Your task to perform on an android device: Do I have any events tomorrow? Image 0: 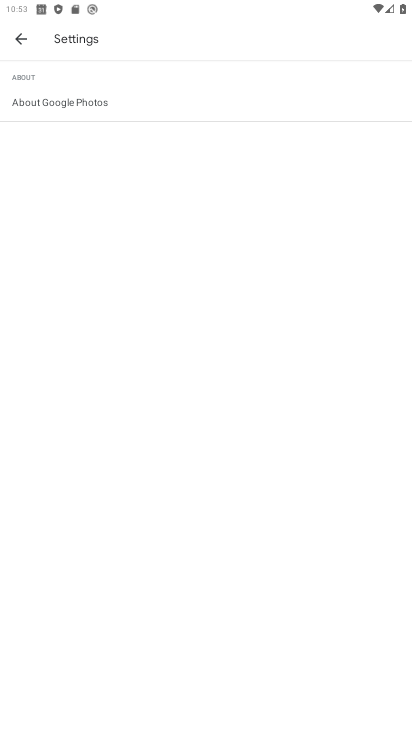
Step 0: press home button
Your task to perform on an android device: Do I have any events tomorrow? Image 1: 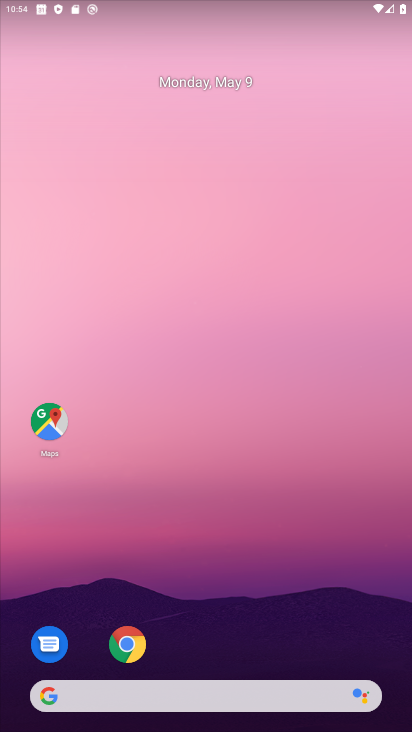
Step 1: drag from (233, 624) to (249, 10)
Your task to perform on an android device: Do I have any events tomorrow? Image 2: 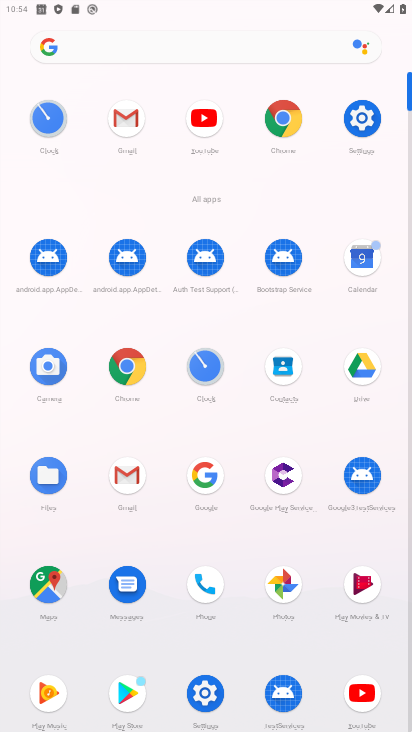
Step 2: drag from (228, 633) to (238, 464)
Your task to perform on an android device: Do I have any events tomorrow? Image 3: 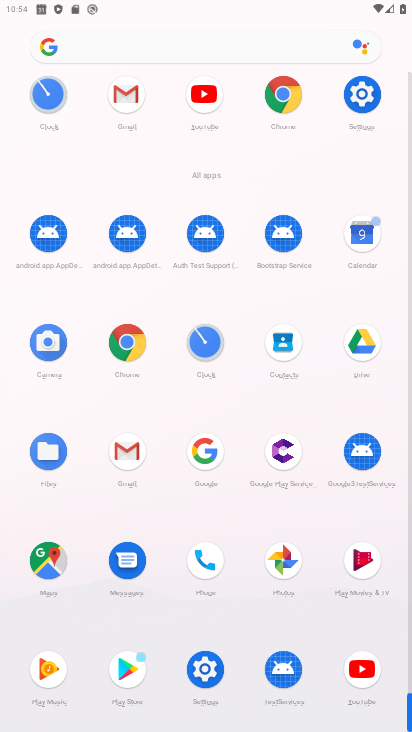
Step 3: click (364, 226)
Your task to perform on an android device: Do I have any events tomorrow? Image 4: 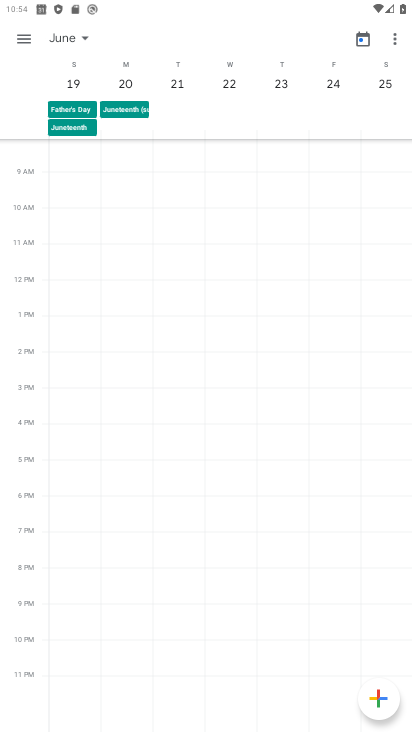
Step 4: click (30, 34)
Your task to perform on an android device: Do I have any events tomorrow? Image 5: 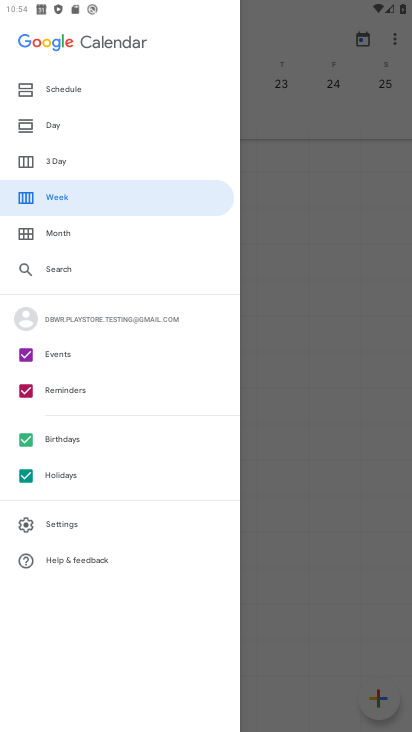
Step 5: click (52, 396)
Your task to perform on an android device: Do I have any events tomorrow? Image 6: 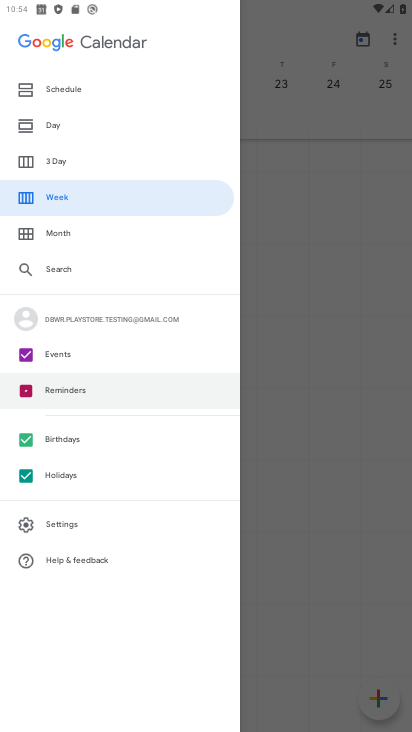
Step 6: click (59, 440)
Your task to perform on an android device: Do I have any events tomorrow? Image 7: 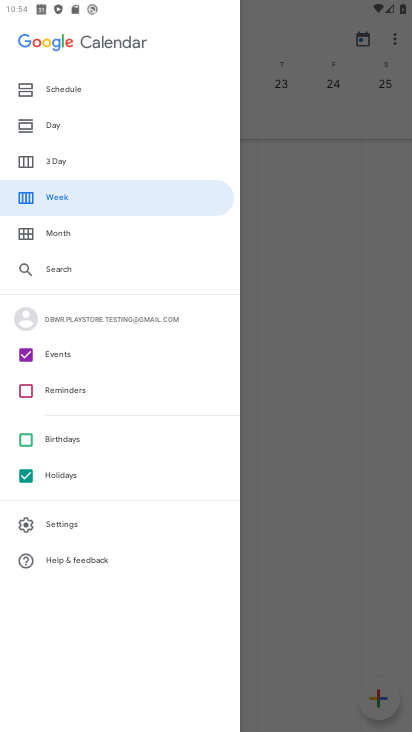
Step 7: click (58, 479)
Your task to perform on an android device: Do I have any events tomorrow? Image 8: 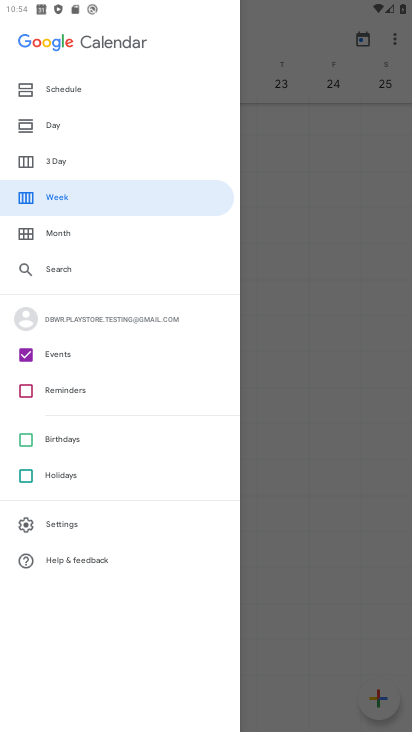
Step 8: click (62, 157)
Your task to perform on an android device: Do I have any events tomorrow? Image 9: 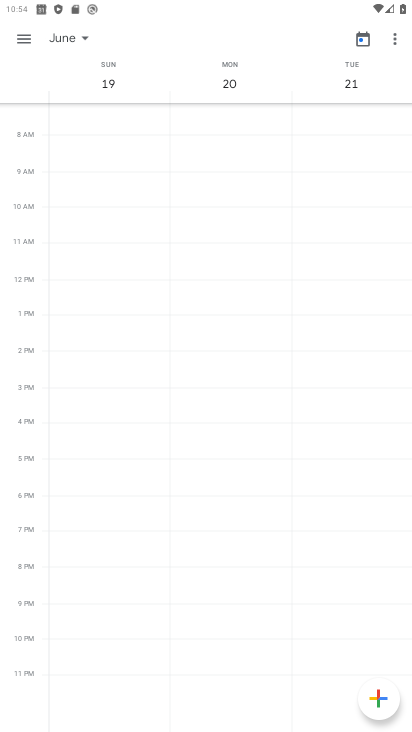
Step 9: drag from (176, 416) to (192, 651)
Your task to perform on an android device: Do I have any events tomorrow? Image 10: 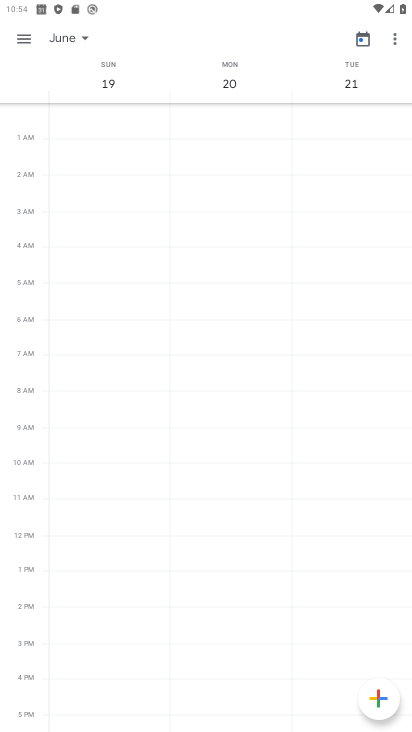
Step 10: click (65, 36)
Your task to perform on an android device: Do I have any events tomorrow? Image 11: 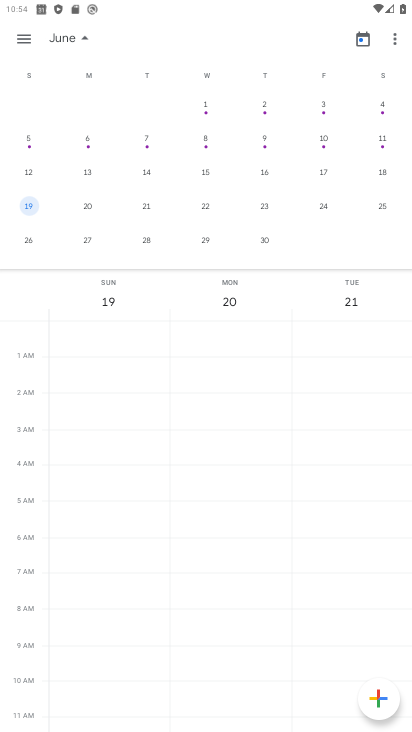
Step 11: drag from (50, 162) to (399, 202)
Your task to perform on an android device: Do I have any events tomorrow? Image 12: 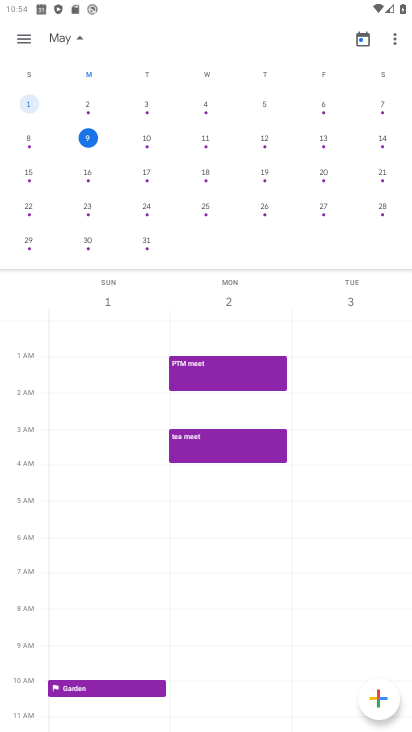
Step 12: click (91, 135)
Your task to perform on an android device: Do I have any events tomorrow? Image 13: 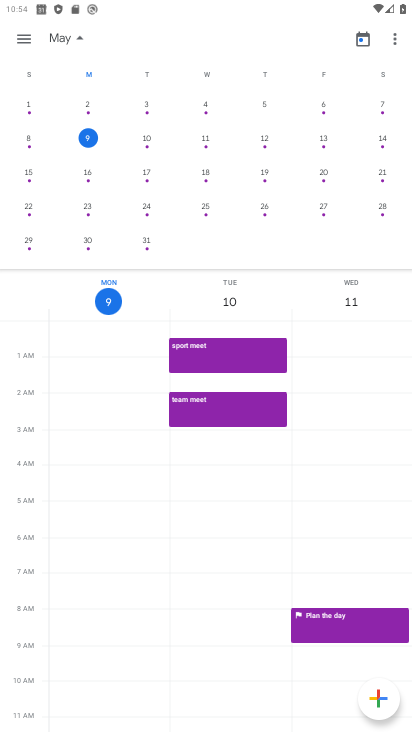
Step 13: click (87, 136)
Your task to perform on an android device: Do I have any events tomorrow? Image 14: 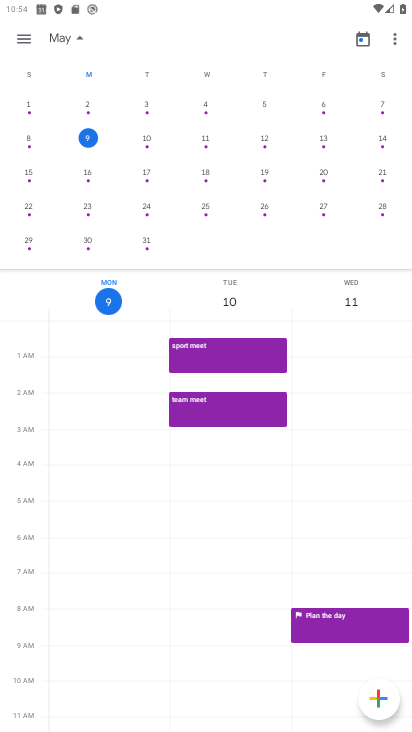
Step 14: click (29, 34)
Your task to perform on an android device: Do I have any events tomorrow? Image 15: 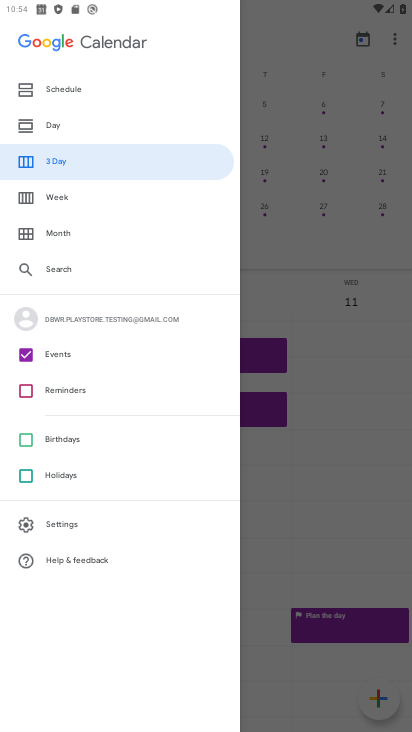
Step 15: click (75, 162)
Your task to perform on an android device: Do I have any events tomorrow? Image 16: 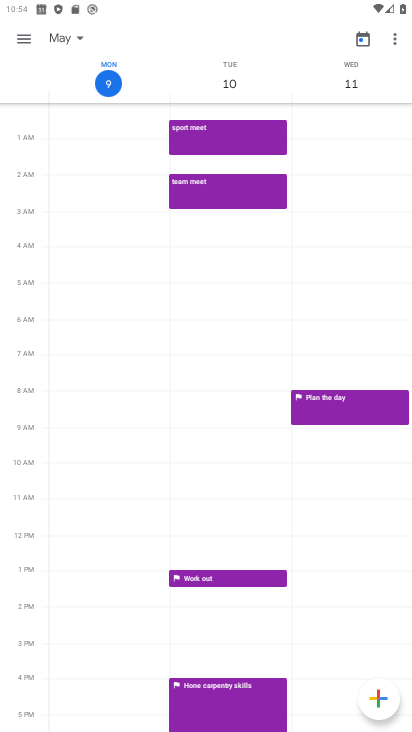
Step 16: task complete